Your task to perform on an android device: Open CNN.com Image 0: 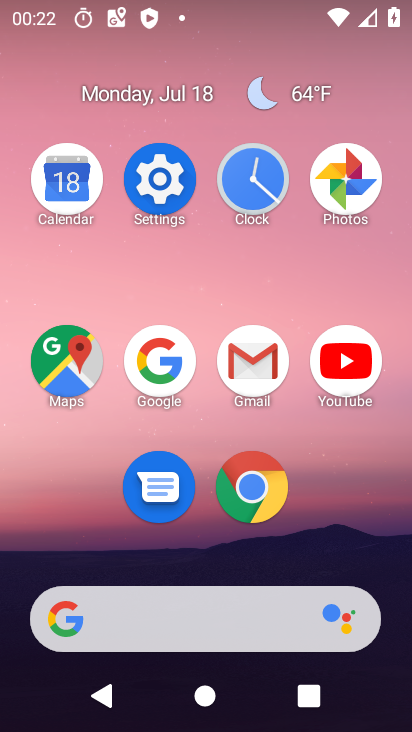
Step 0: click (272, 493)
Your task to perform on an android device: Open CNN.com Image 1: 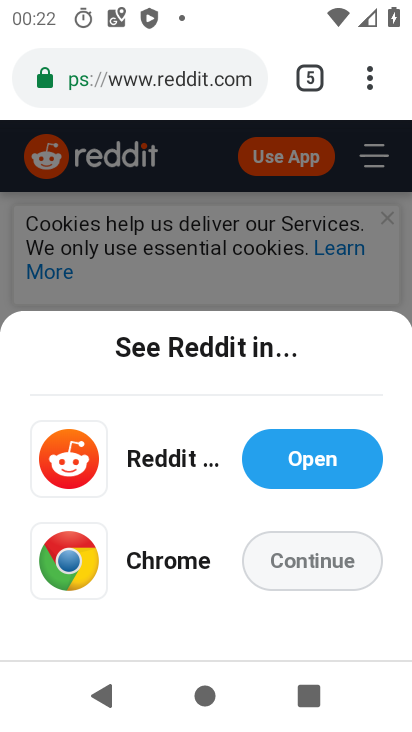
Step 1: click (302, 83)
Your task to perform on an android device: Open CNN.com Image 2: 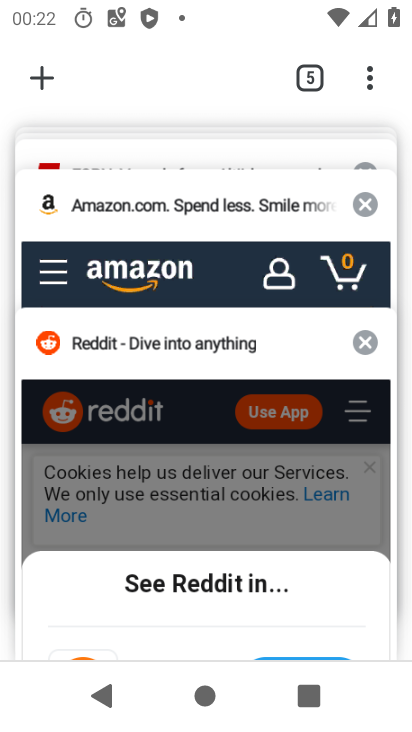
Step 2: click (51, 70)
Your task to perform on an android device: Open CNN.com Image 3: 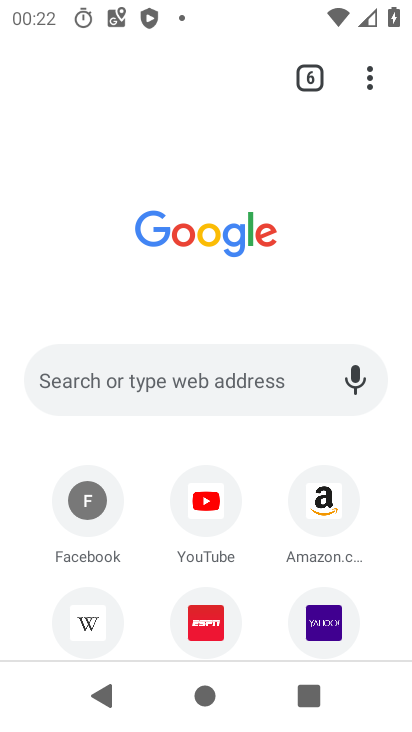
Step 3: click (223, 364)
Your task to perform on an android device: Open CNN.com Image 4: 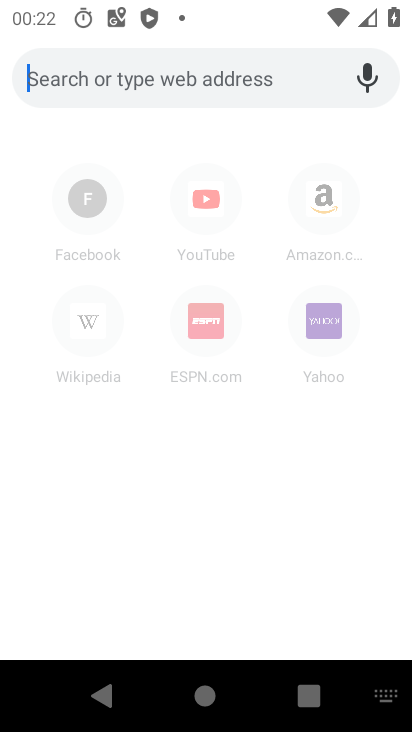
Step 4: type "cnn"
Your task to perform on an android device: Open CNN.com Image 5: 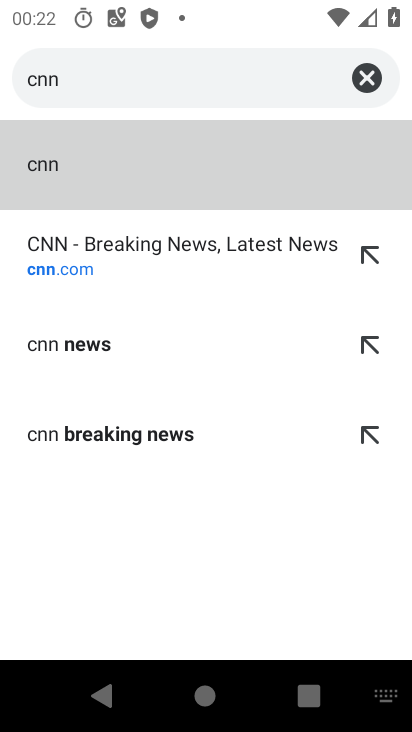
Step 5: click (149, 262)
Your task to perform on an android device: Open CNN.com Image 6: 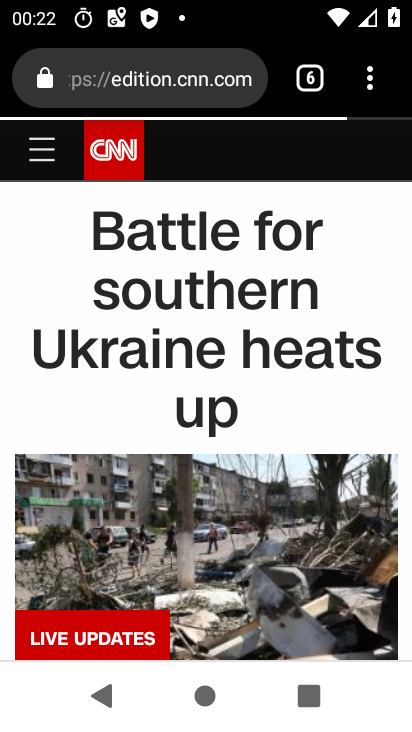
Step 6: task complete